Your task to perform on an android device: Open the web browser Image 0: 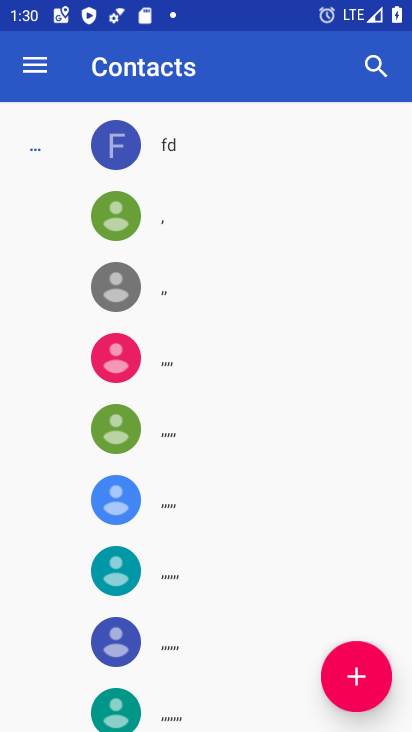
Step 0: press home button
Your task to perform on an android device: Open the web browser Image 1: 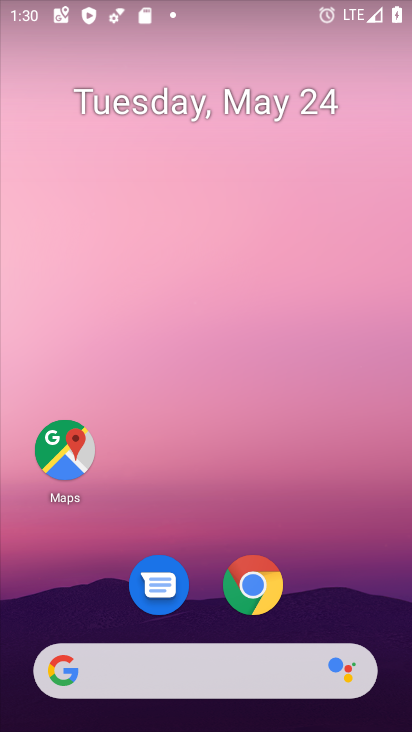
Step 1: click (254, 577)
Your task to perform on an android device: Open the web browser Image 2: 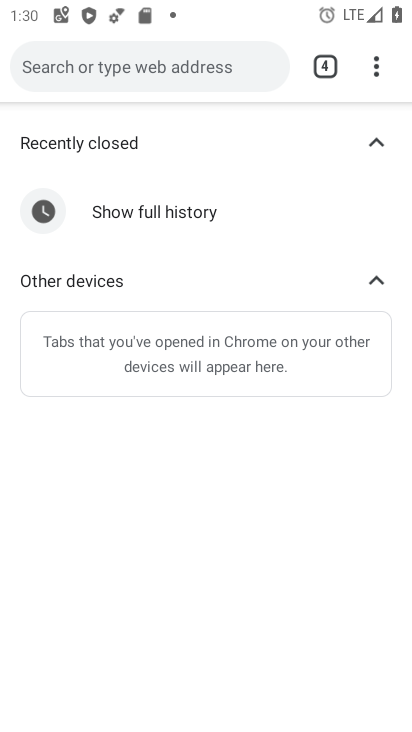
Step 2: click (369, 68)
Your task to perform on an android device: Open the web browser Image 3: 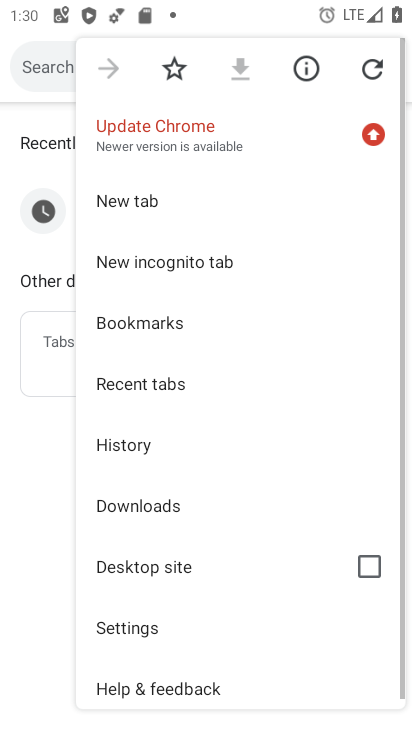
Step 3: click (235, 195)
Your task to perform on an android device: Open the web browser Image 4: 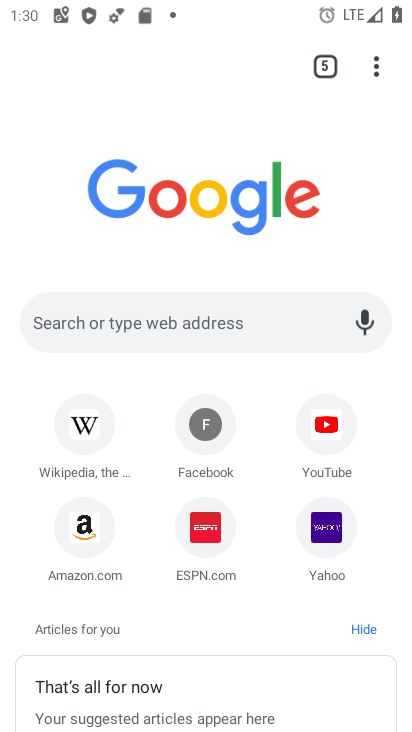
Step 4: task complete